Your task to perform on an android device: toggle data saver in the chrome app Image 0: 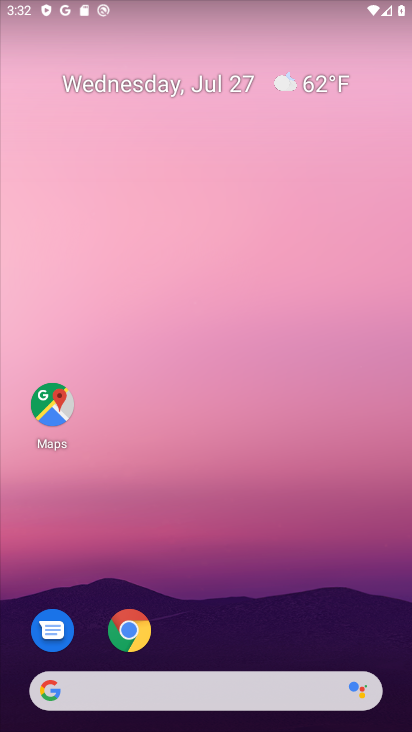
Step 0: drag from (198, 649) to (196, 571)
Your task to perform on an android device: toggle data saver in the chrome app Image 1: 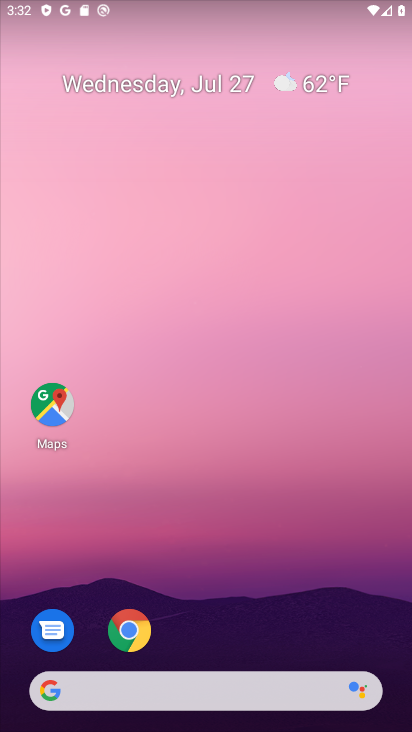
Step 1: drag from (208, 638) to (112, 94)
Your task to perform on an android device: toggle data saver in the chrome app Image 2: 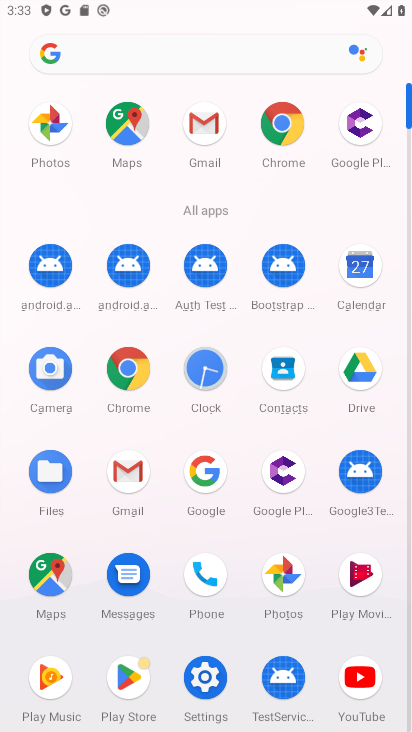
Step 2: click (270, 127)
Your task to perform on an android device: toggle data saver in the chrome app Image 3: 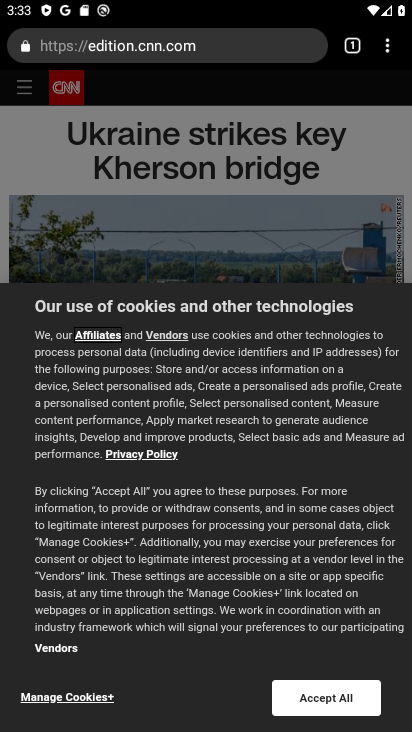
Step 3: click (388, 48)
Your task to perform on an android device: toggle data saver in the chrome app Image 4: 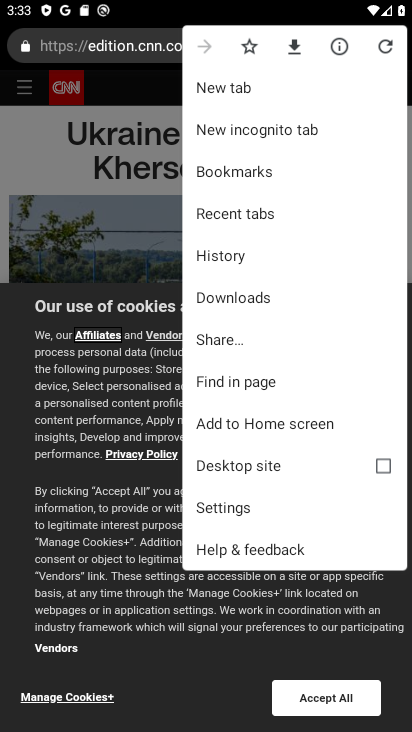
Step 4: click (232, 505)
Your task to perform on an android device: toggle data saver in the chrome app Image 5: 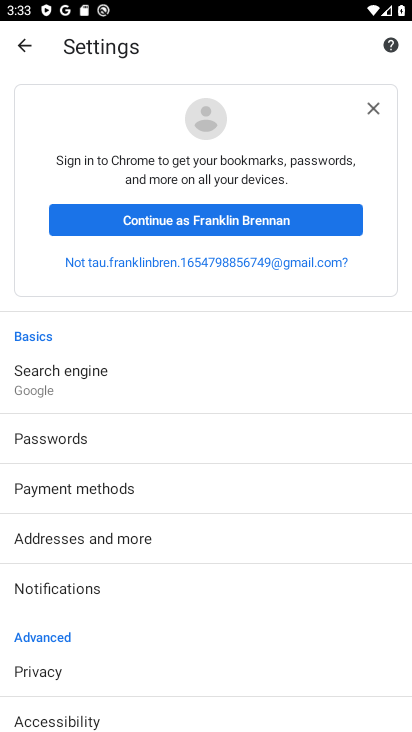
Step 5: click (249, 351)
Your task to perform on an android device: toggle data saver in the chrome app Image 6: 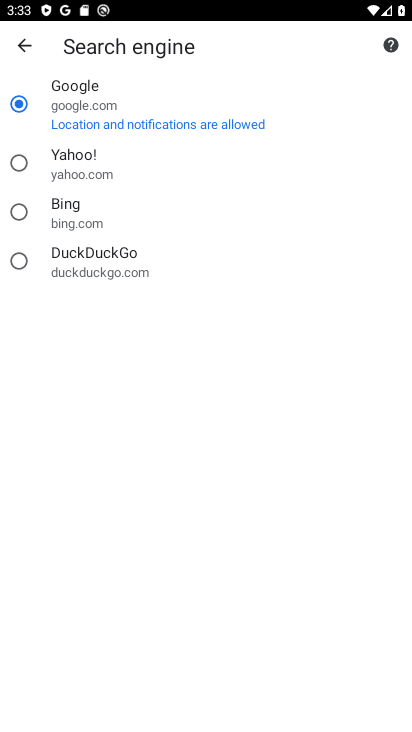
Step 6: click (21, 51)
Your task to perform on an android device: toggle data saver in the chrome app Image 7: 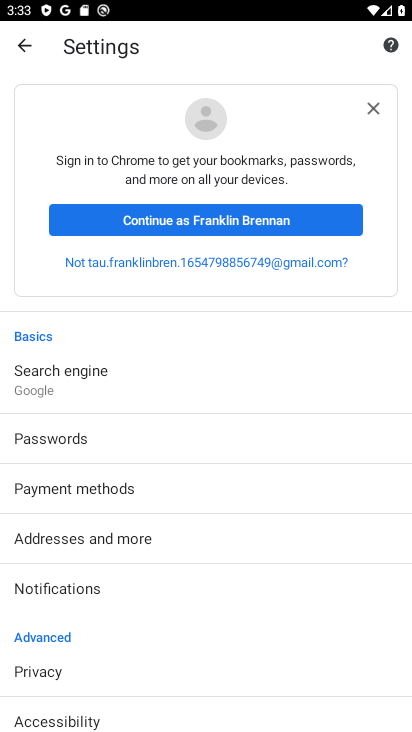
Step 7: drag from (302, 680) to (255, 232)
Your task to perform on an android device: toggle data saver in the chrome app Image 8: 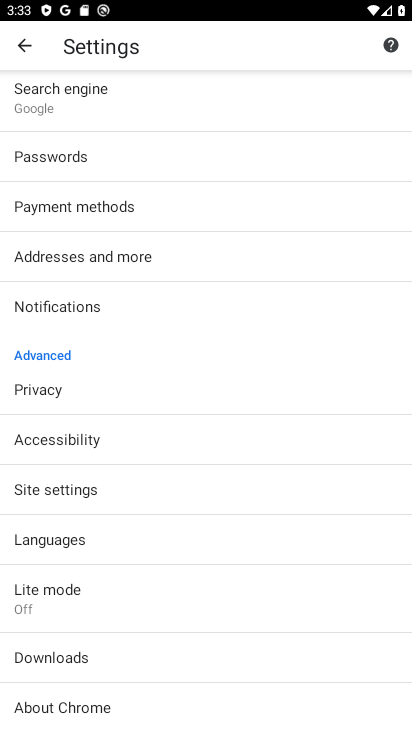
Step 8: click (76, 603)
Your task to perform on an android device: toggle data saver in the chrome app Image 9: 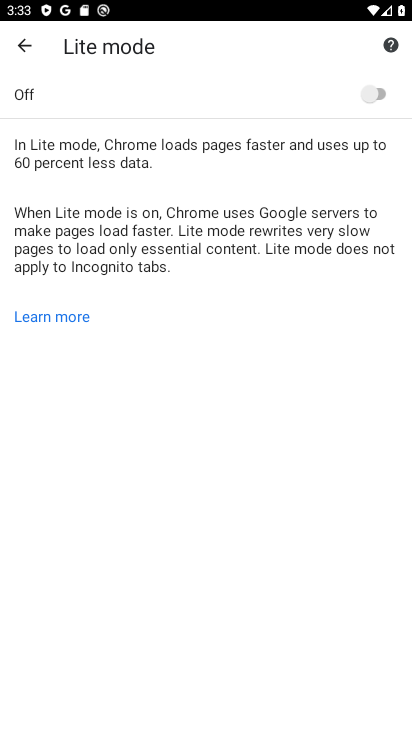
Step 9: click (377, 92)
Your task to perform on an android device: toggle data saver in the chrome app Image 10: 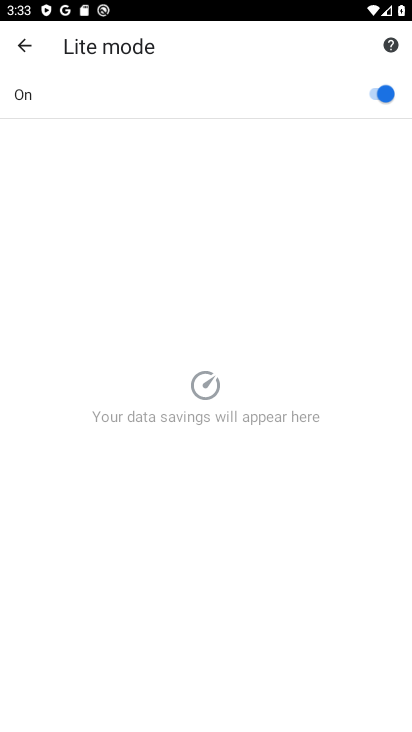
Step 10: task complete